Your task to perform on an android device: Go to internet settings Image 0: 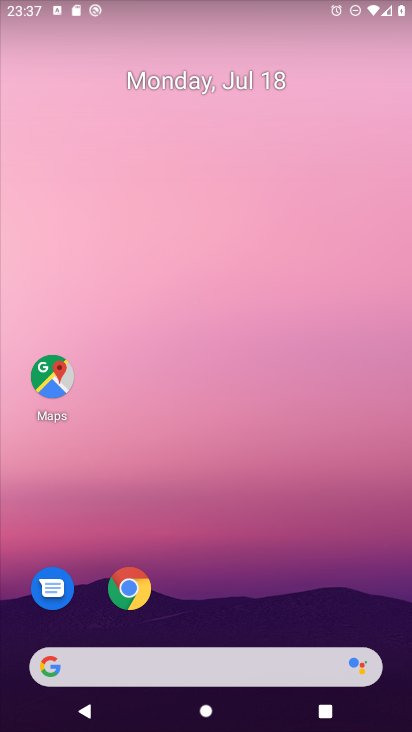
Step 0: drag from (381, 624) to (346, 76)
Your task to perform on an android device: Go to internet settings Image 1: 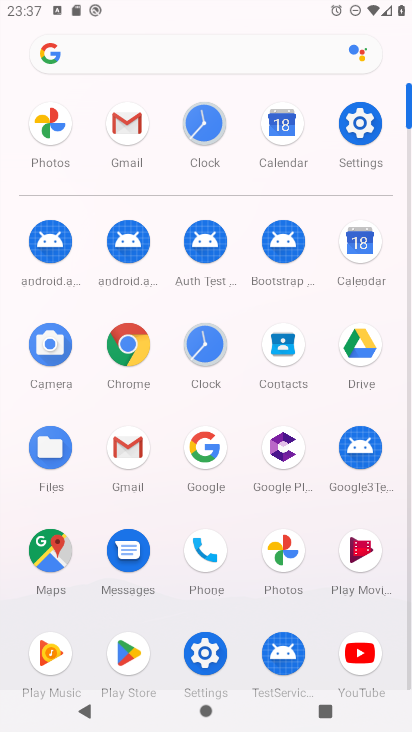
Step 1: click (204, 651)
Your task to perform on an android device: Go to internet settings Image 2: 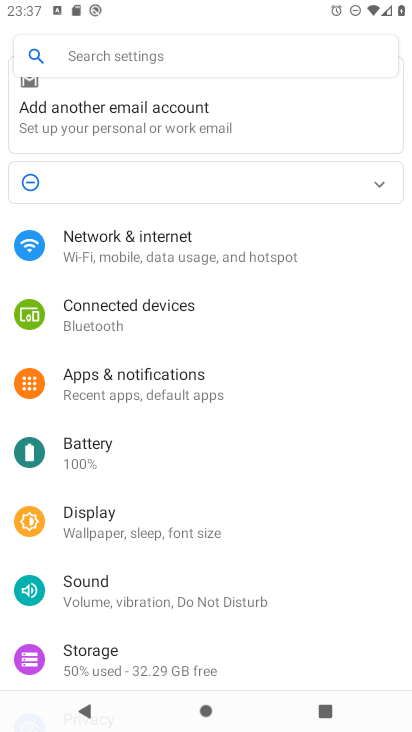
Step 2: click (126, 248)
Your task to perform on an android device: Go to internet settings Image 3: 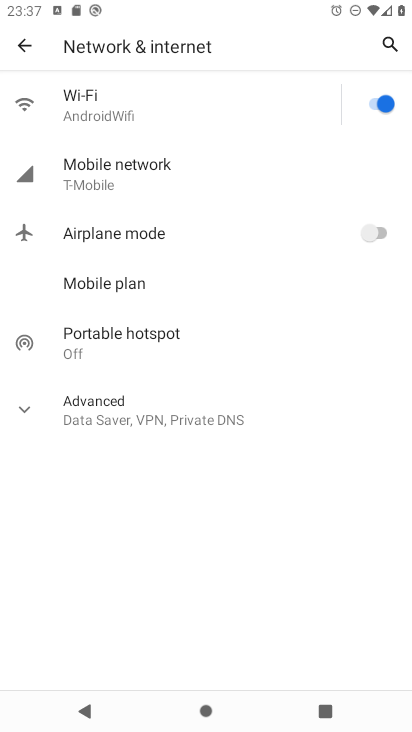
Step 3: click (76, 111)
Your task to perform on an android device: Go to internet settings Image 4: 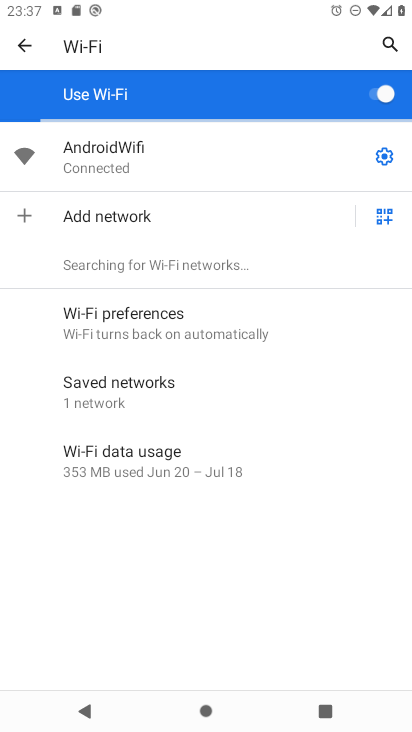
Step 4: click (386, 155)
Your task to perform on an android device: Go to internet settings Image 5: 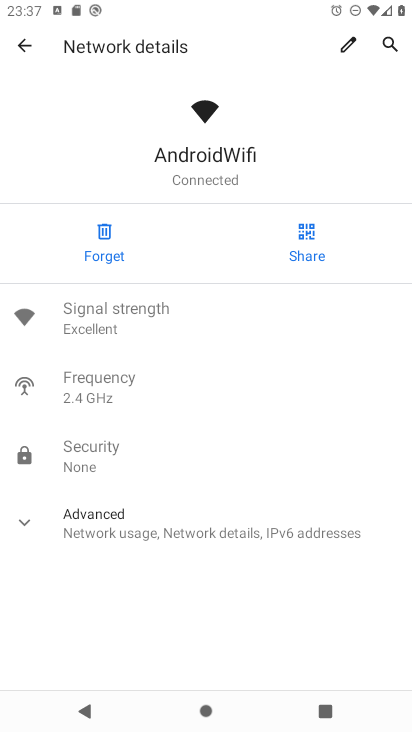
Step 5: task complete